Your task to perform on an android device: turn off smart reply in the gmail app Image 0: 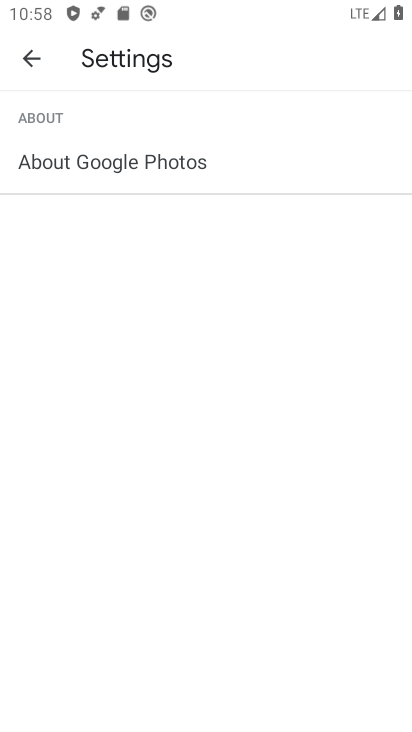
Step 0: drag from (245, 587) to (227, 231)
Your task to perform on an android device: turn off smart reply in the gmail app Image 1: 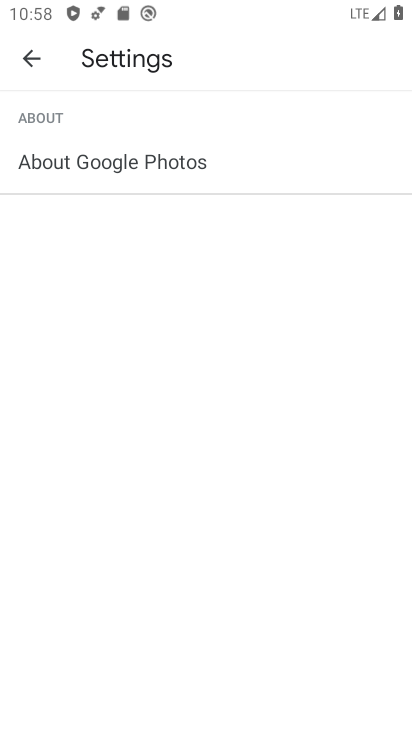
Step 1: press home button
Your task to perform on an android device: turn off smart reply in the gmail app Image 2: 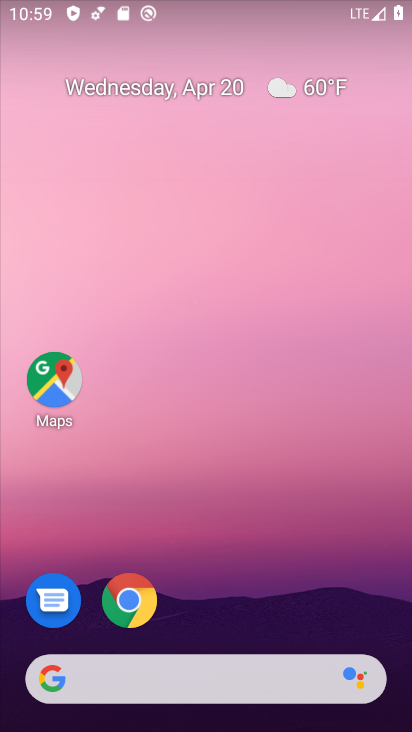
Step 2: drag from (214, 623) to (201, 129)
Your task to perform on an android device: turn off smart reply in the gmail app Image 3: 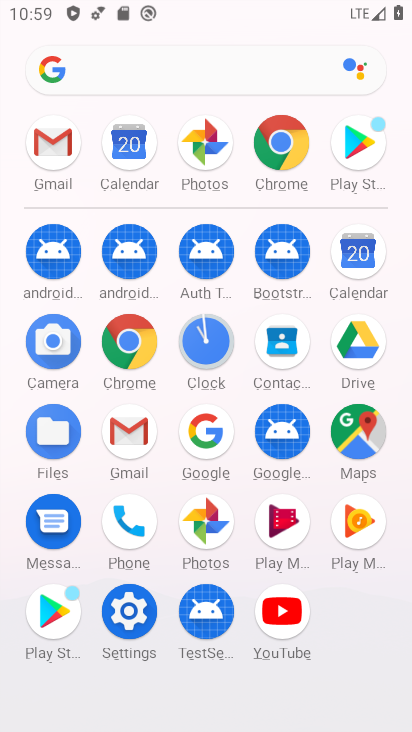
Step 3: click (47, 140)
Your task to perform on an android device: turn off smart reply in the gmail app Image 4: 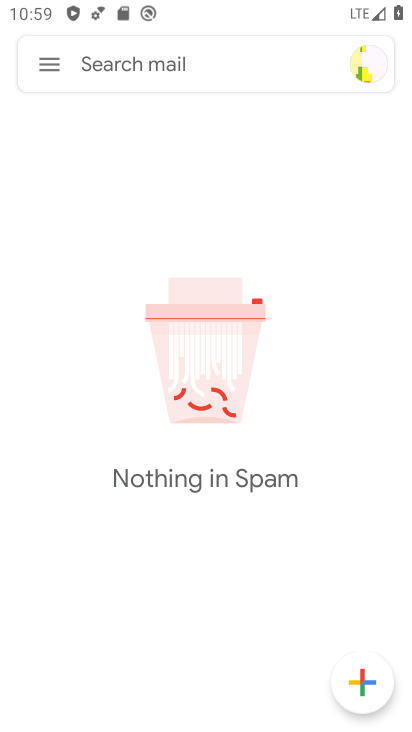
Step 4: click (50, 50)
Your task to perform on an android device: turn off smart reply in the gmail app Image 5: 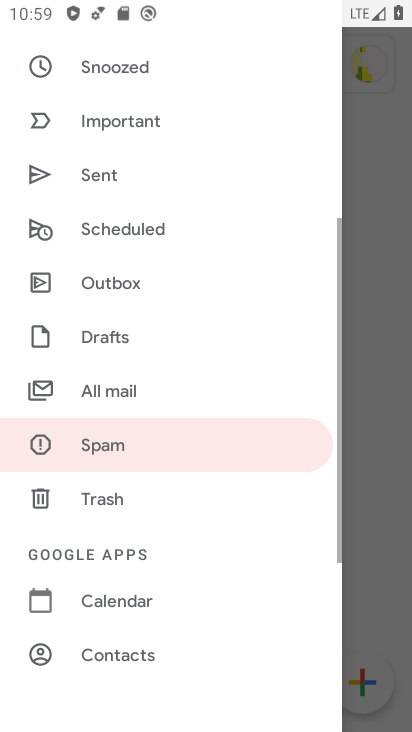
Step 5: drag from (185, 564) to (233, 75)
Your task to perform on an android device: turn off smart reply in the gmail app Image 6: 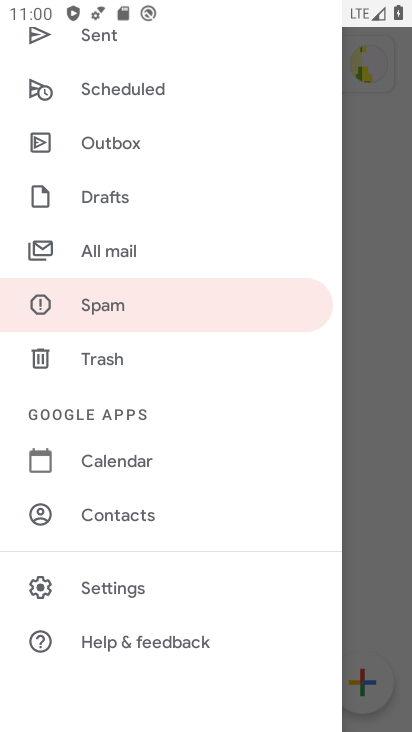
Step 6: click (127, 579)
Your task to perform on an android device: turn off smart reply in the gmail app Image 7: 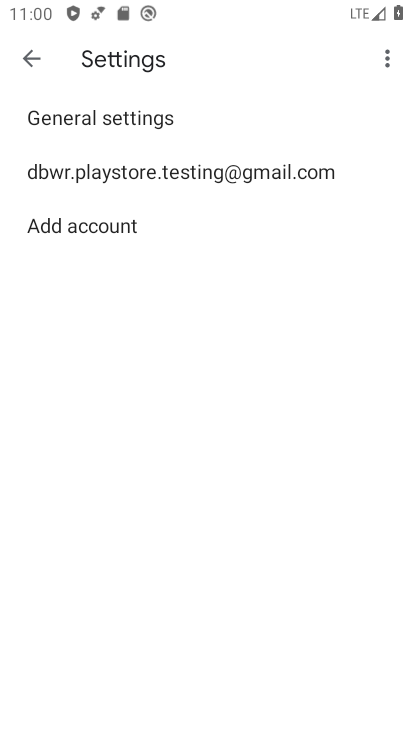
Step 7: click (179, 147)
Your task to perform on an android device: turn off smart reply in the gmail app Image 8: 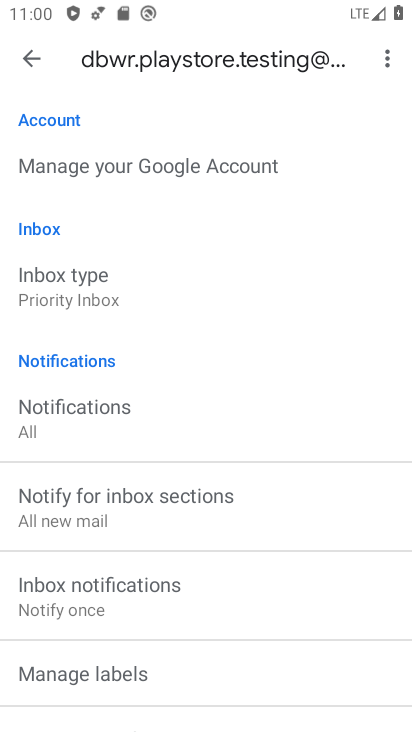
Step 8: drag from (218, 464) to (301, 72)
Your task to perform on an android device: turn off smart reply in the gmail app Image 9: 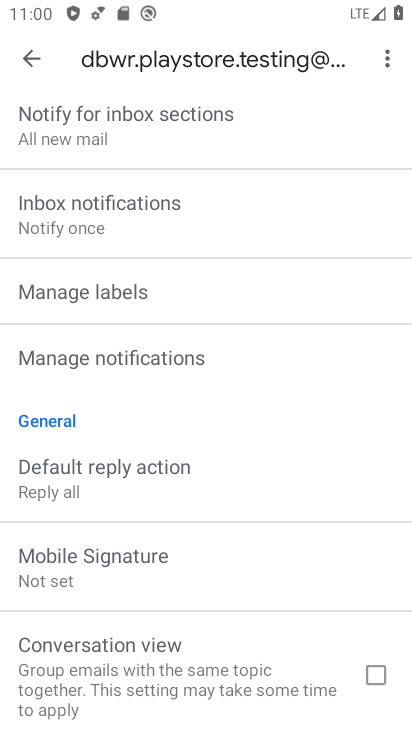
Step 9: drag from (224, 422) to (279, 162)
Your task to perform on an android device: turn off smart reply in the gmail app Image 10: 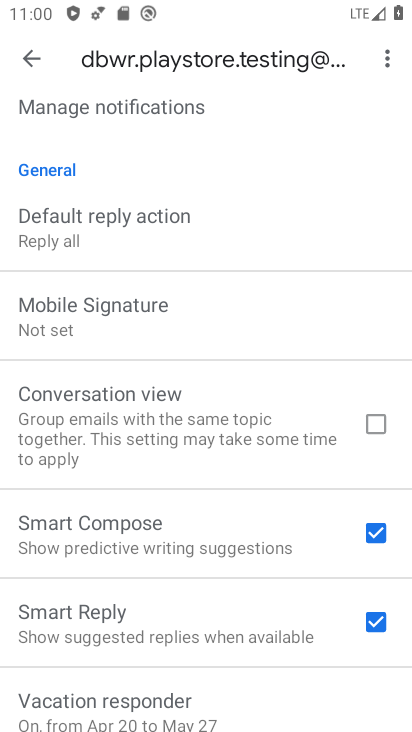
Step 10: click (366, 618)
Your task to perform on an android device: turn off smart reply in the gmail app Image 11: 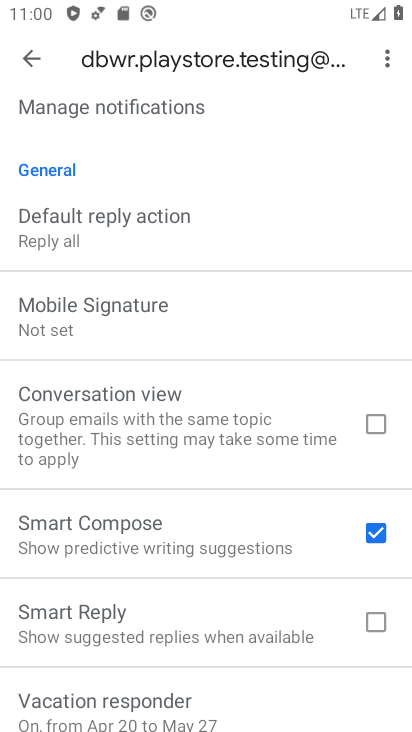
Step 11: task complete